Your task to perform on an android device: snooze an email in the gmail app Image 0: 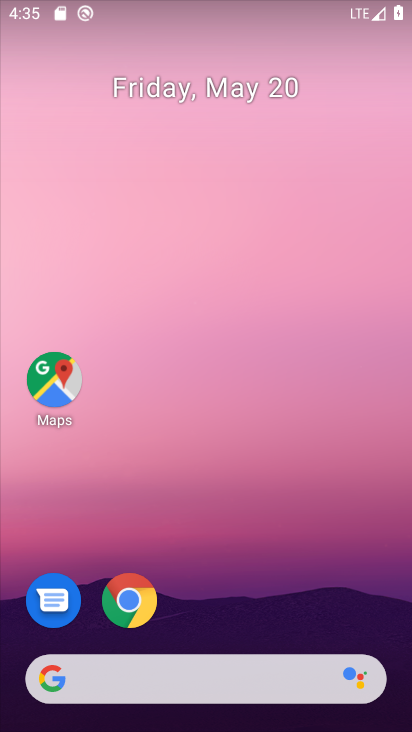
Step 0: drag from (208, 198) to (232, 10)
Your task to perform on an android device: snooze an email in the gmail app Image 1: 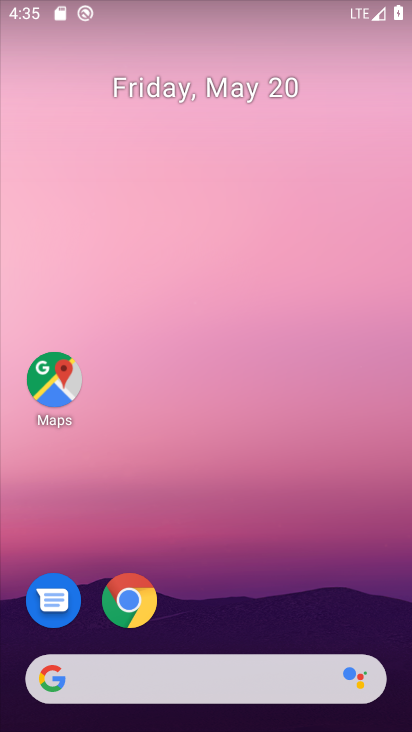
Step 1: drag from (262, 580) to (252, 10)
Your task to perform on an android device: snooze an email in the gmail app Image 2: 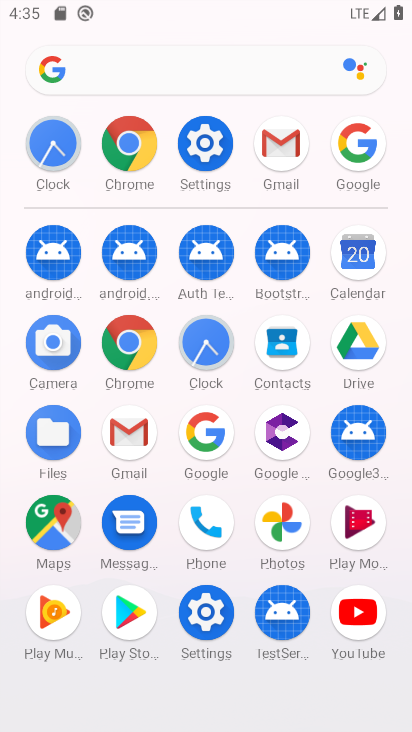
Step 2: click (275, 161)
Your task to perform on an android device: snooze an email in the gmail app Image 3: 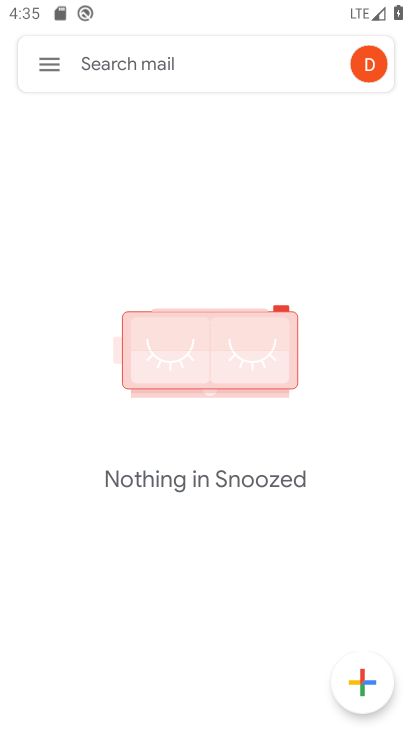
Step 3: click (64, 44)
Your task to perform on an android device: snooze an email in the gmail app Image 4: 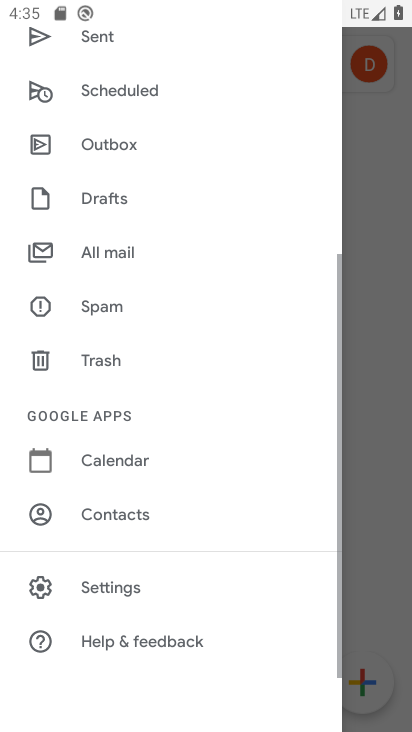
Step 4: drag from (168, 154) to (144, 690)
Your task to perform on an android device: snooze an email in the gmail app Image 5: 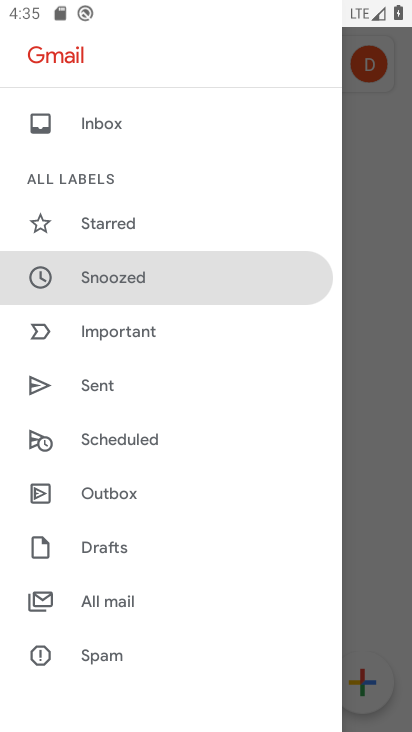
Step 5: click (131, 120)
Your task to perform on an android device: snooze an email in the gmail app Image 6: 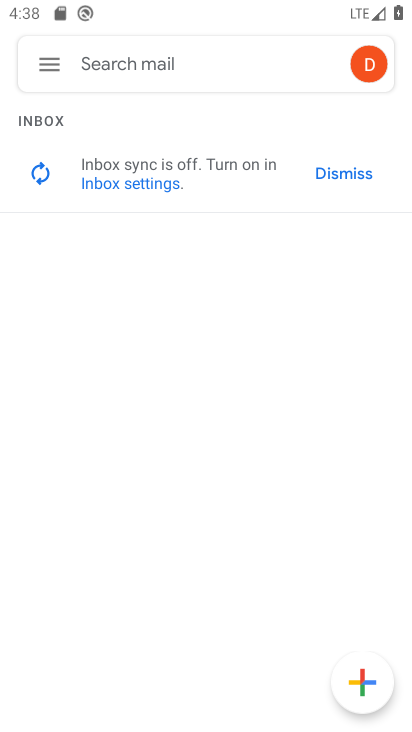
Step 6: task complete